Your task to perform on an android device: toggle priority inbox in the gmail app Image 0: 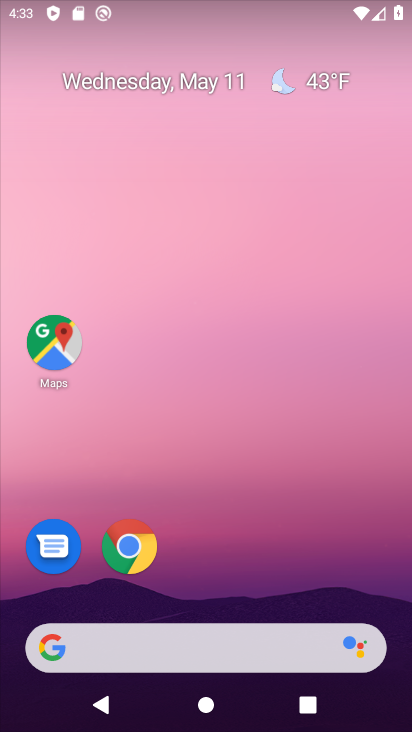
Step 0: drag from (208, 629) to (168, 179)
Your task to perform on an android device: toggle priority inbox in the gmail app Image 1: 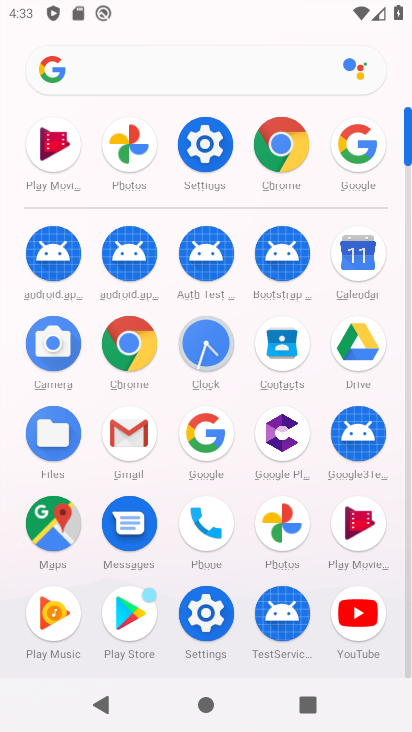
Step 1: click (142, 429)
Your task to perform on an android device: toggle priority inbox in the gmail app Image 2: 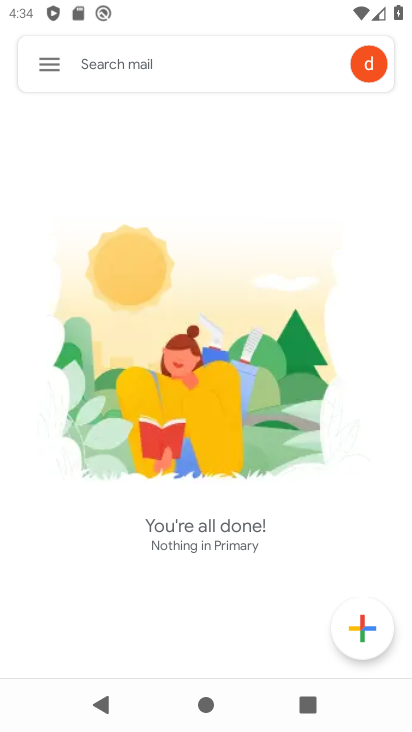
Step 2: click (48, 64)
Your task to perform on an android device: toggle priority inbox in the gmail app Image 3: 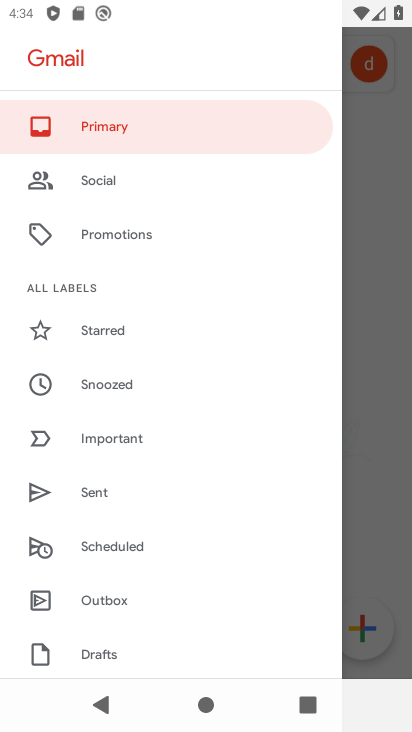
Step 3: drag from (121, 636) to (121, 325)
Your task to perform on an android device: toggle priority inbox in the gmail app Image 4: 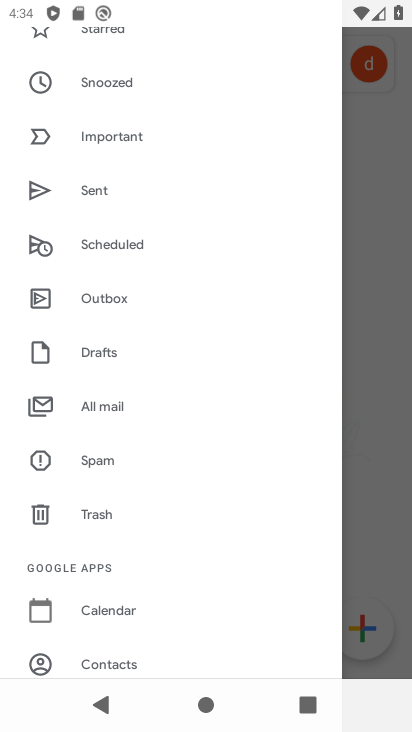
Step 4: drag from (143, 654) to (131, 334)
Your task to perform on an android device: toggle priority inbox in the gmail app Image 5: 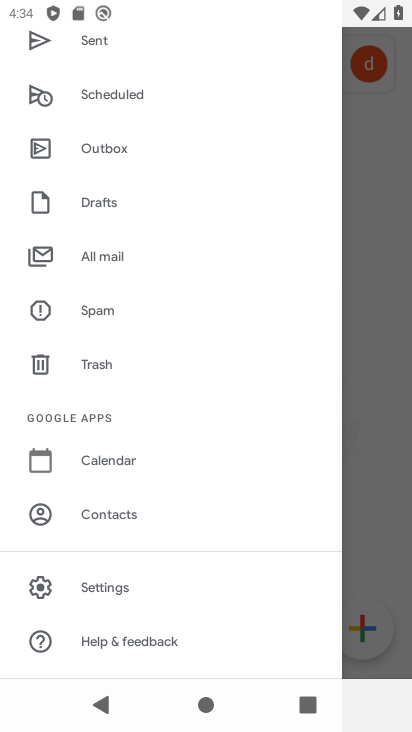
Step 5: click (92, 583)
Your task to perform on an android device: toggle priority inbox in the gmail app Image 6: 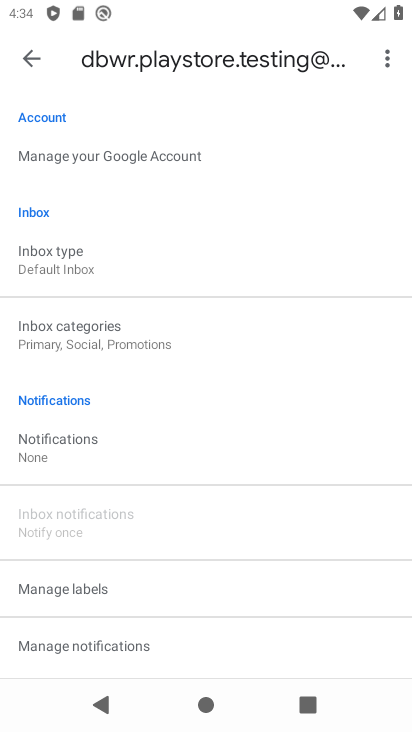
Step 6: click (90, 264)
Your task to perform on an android device: toggle priority inbox in the gmail app Image 7: 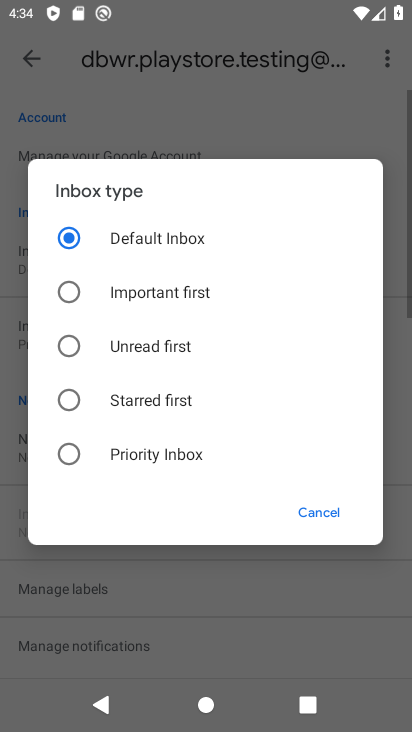
Step 7: click (124, 453)
Your task to perform on an android device: toggle priority inbox in the gmail app Image 8: 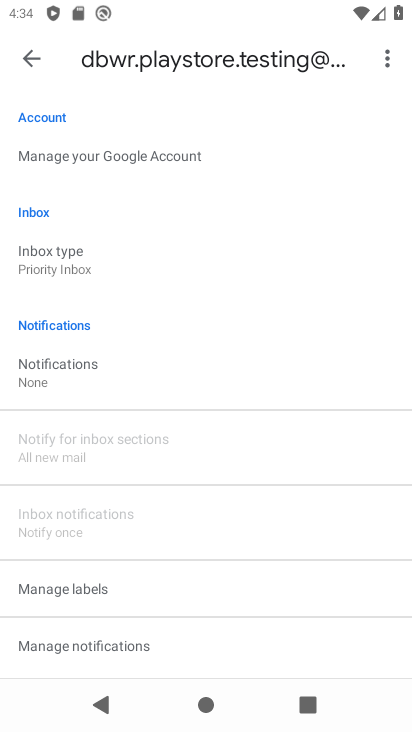
Step 8: task complete